Your task to perform on an android device: turn on sleep mode Image 0: 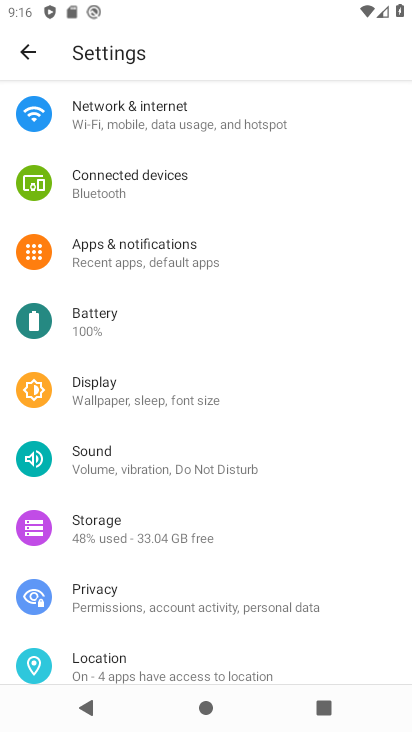
Step 0: press home button
Your task to perform on an android device: turn on sleep mode Image 1: 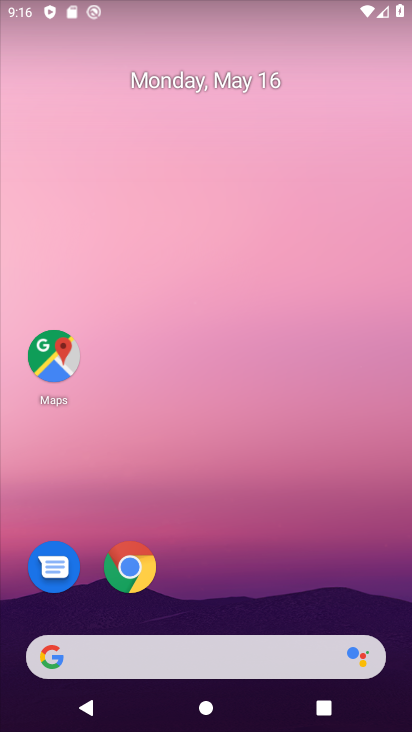
Step 1: drag from (230, 562) to (226, 237)
Your task to perform on an android device: turn on sleep mode Image 2: 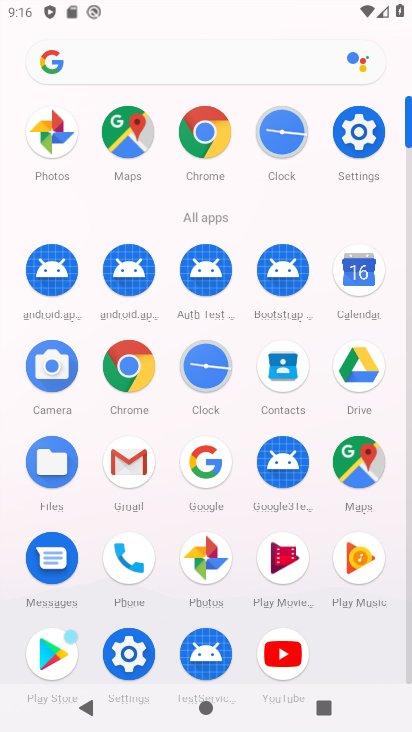
Step 2: click (360, 125)
Your task to perform on an android device: turn on sleep mode Image 3: 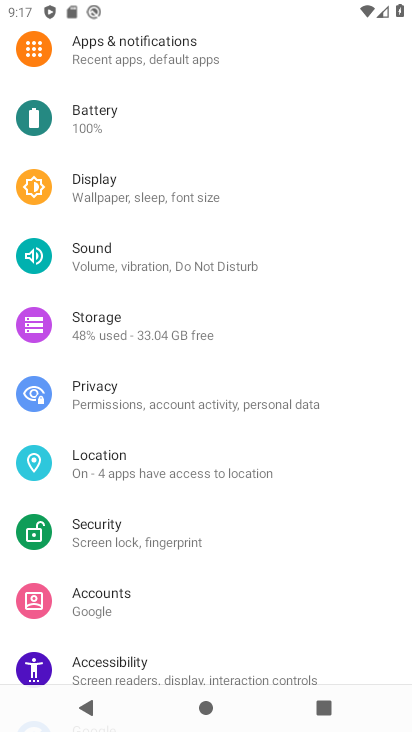
Step 3: task complete